Your task to perform on an android device: uninstall "Microsoft Outlook" Image 0: 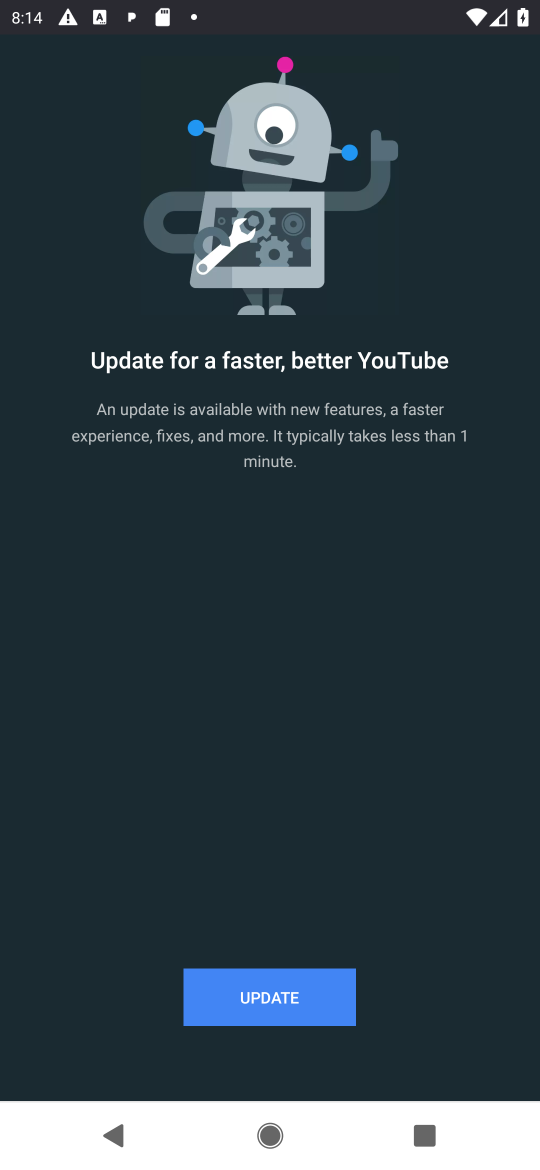
Step 0: press home button
Your task to perform on an android device: uninstall "Microsoft Outlook" Image 1: 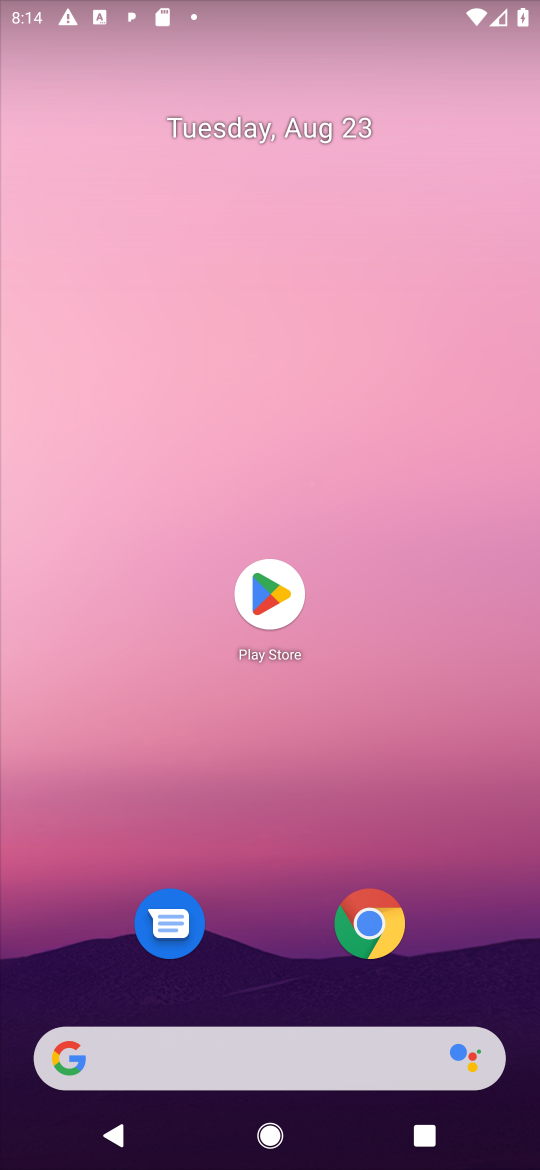
Step 1: click (273, 605)
Your task to perform on an android device: uninstall "Microsoft Outlook" Image 2: 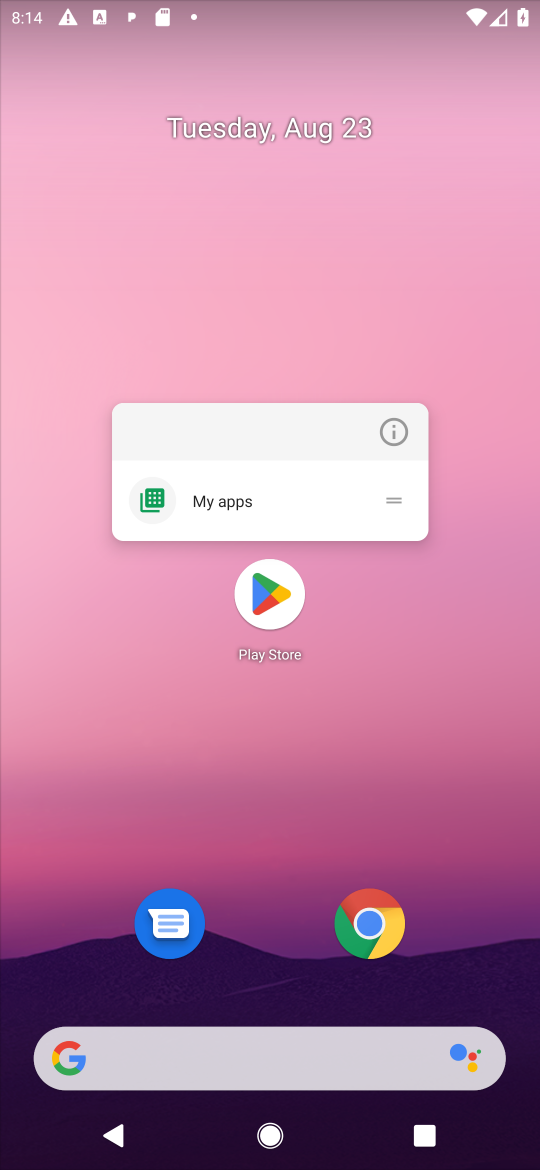
Step 2: click (272, 589)
Your task to perform on an android device: uninstall "Microsoft Outlook" Image 3: 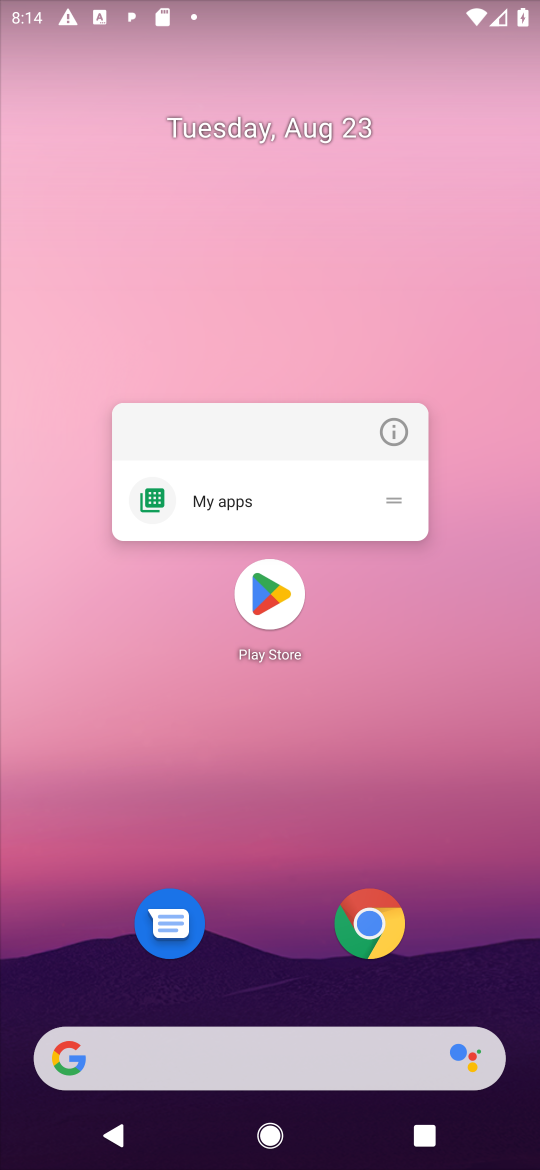
Step 3: click (273, 598)
Your task to perform on an android device: uninstall "Microsoft Outlook" Image 4: 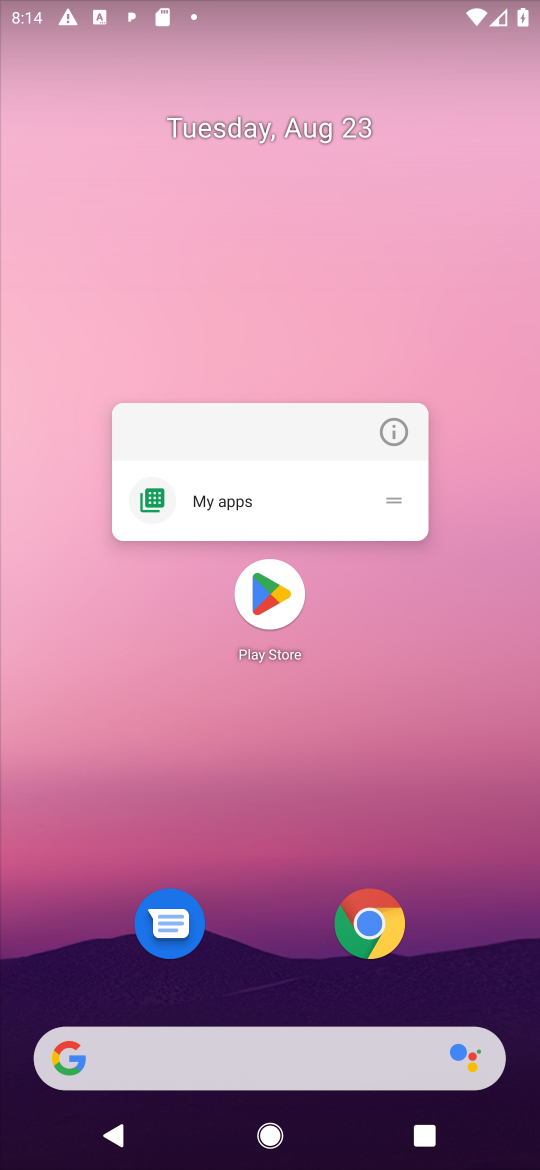
Step 4: click (252, 597)
Your task to perform on an android device: uninstall "Microsoft Outlook" Image 5: 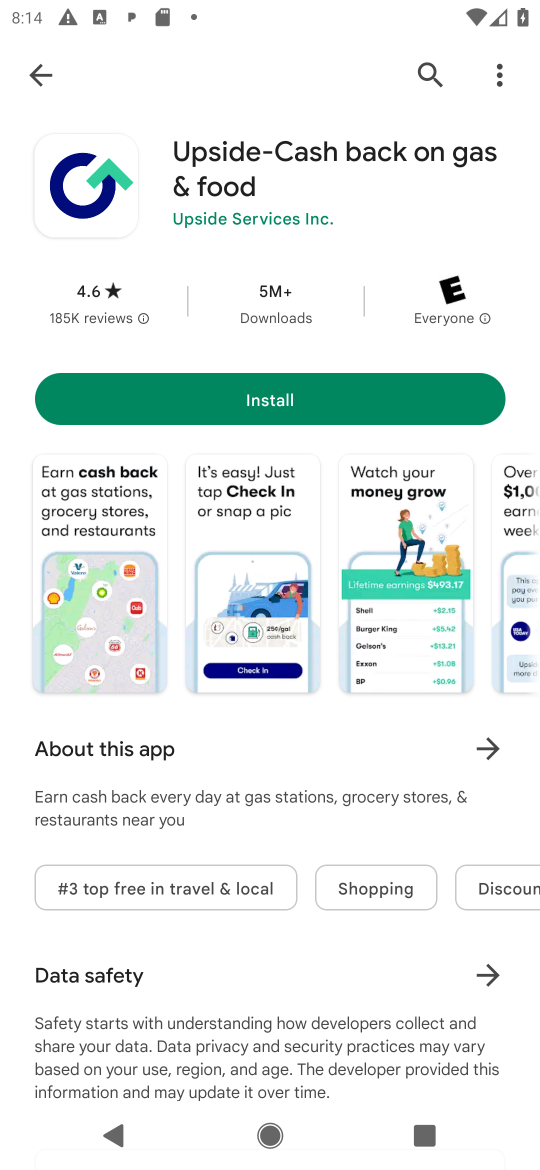
Step 5: click (423, 71)
Your task to perform on an android device: uninstall "Microsoft Outlook" Image 6: 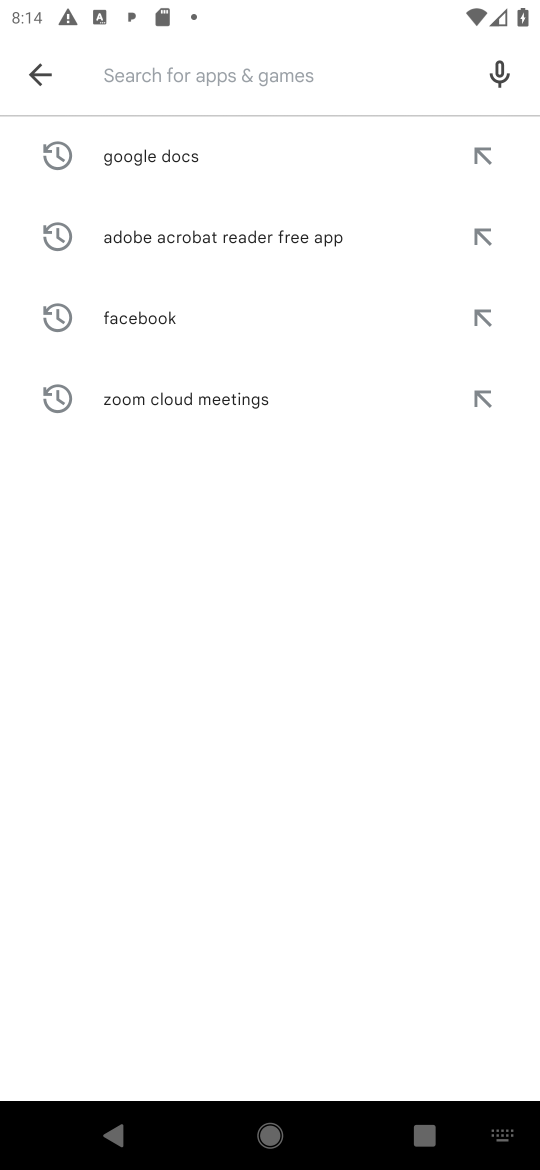
Step 6: type "Microsoft Outlook"
Your task to perform on an android device: uninstall "Microsoft Outlook" Image 7: 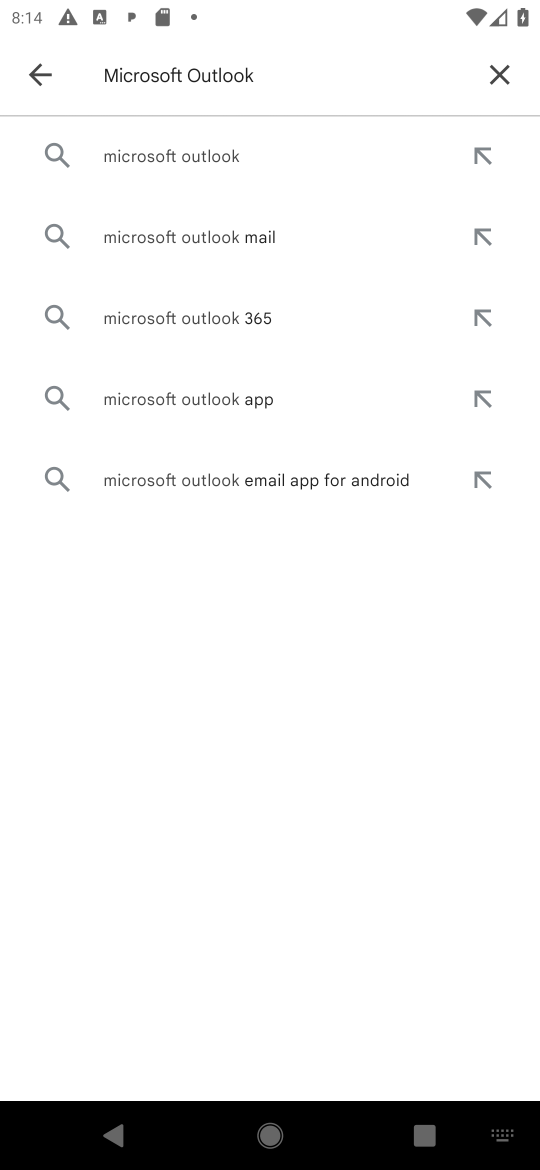
Step 7: click (139, 158)
Your task to perform on an android device: uninstall "Microsoft Outlook" Image 8: 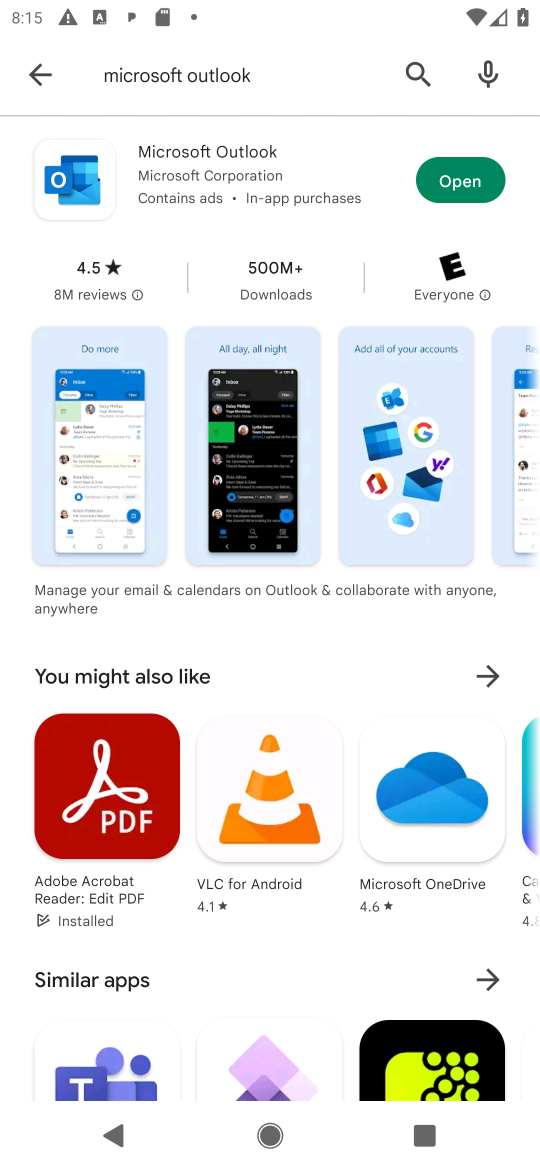
Step 8: task complete